Your task to perform on an android device: Go to CNN.com Image 0: 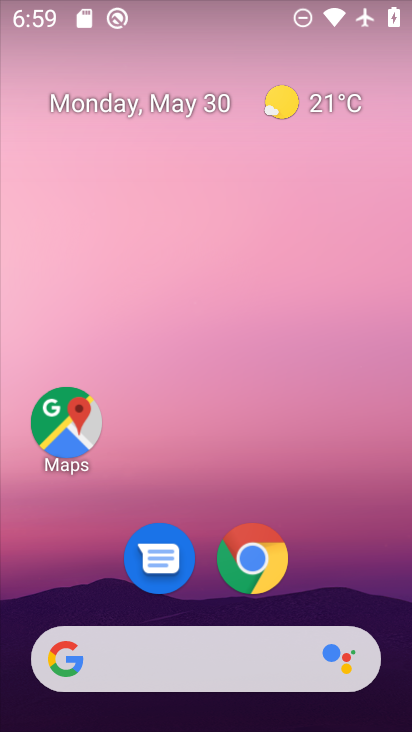
Step 0: click (224, 631)
Your task to perform on an android device: Go to CNN.com Image 1: 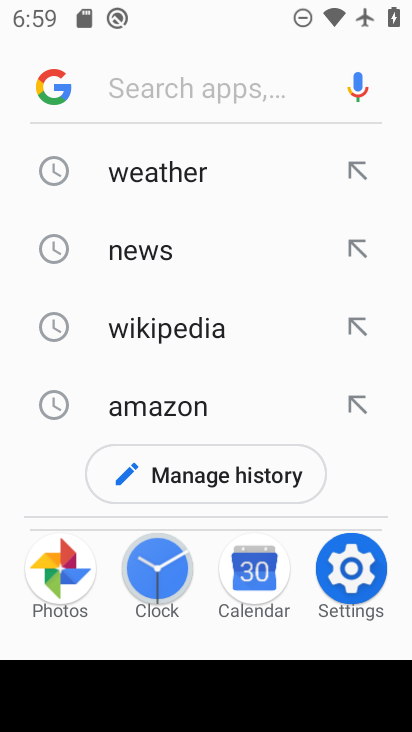
Step 1: type "cnn.com"
Your task to perform on an android device: Go to CNN.com Image 2: 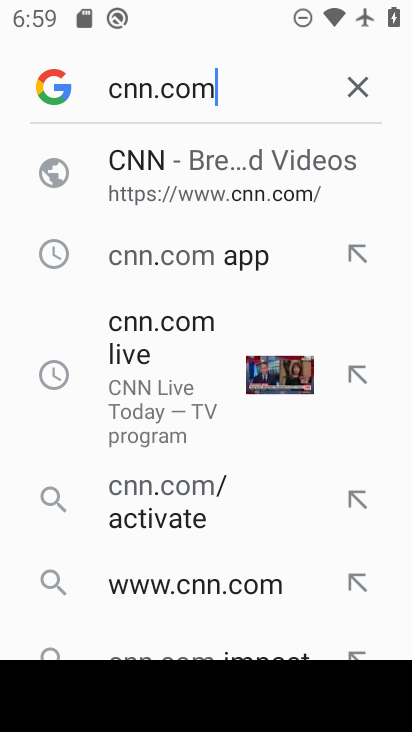
Step 2: click (187, 165)
Your task to perform on an android device: Go to CNN.com Image 3: 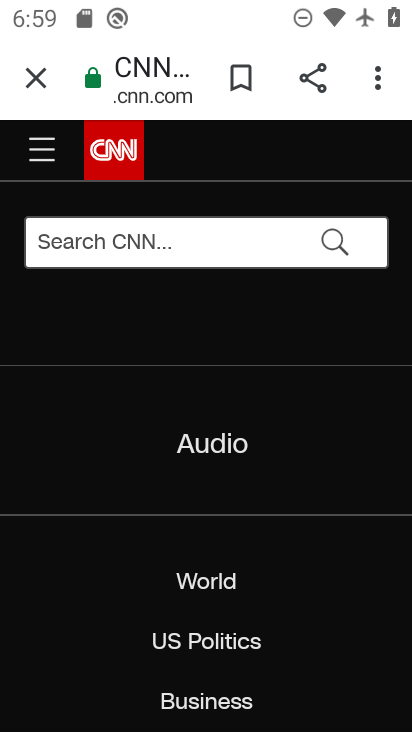
Step 3: task complete